Your task to perform on an android device: turn off notifications in google photos Image 0: 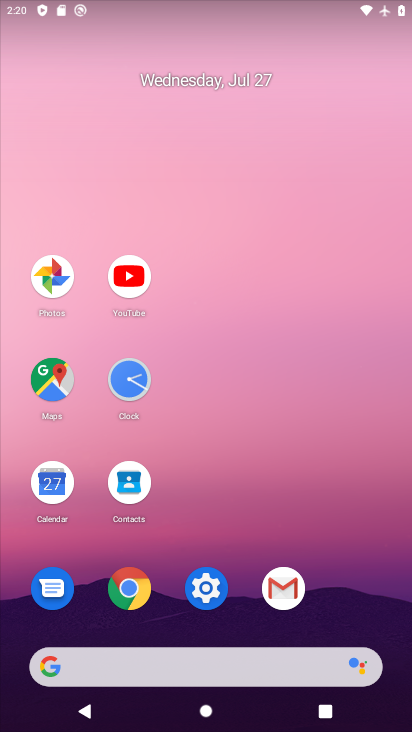
Step 0: click (53, 287)
Your task to perform on an android device: turn off notifications in google photos Image 1: 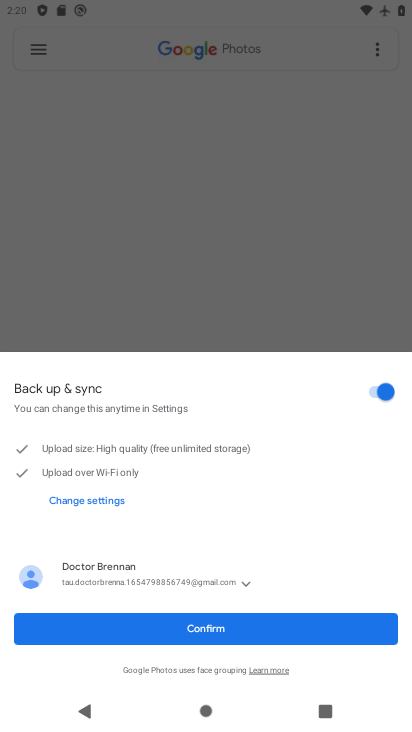
Step 1: click (35, 45)
Your task to perform on an android device: turn off notifications in google photos Image 2: 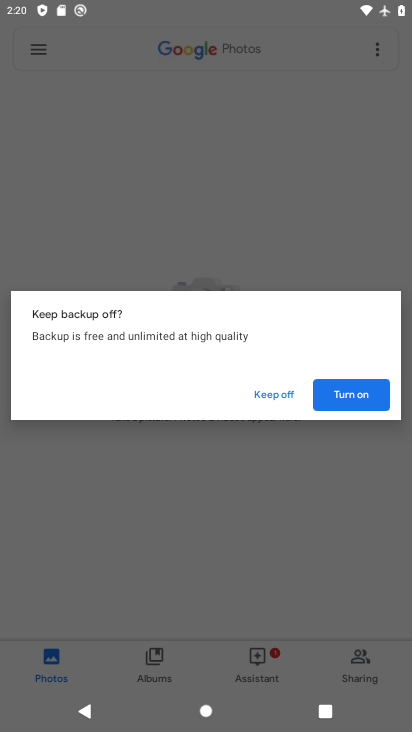
Step 2: click (334, 395)
Your task to perform on an android device: turn off notifications in google photos Image 3: 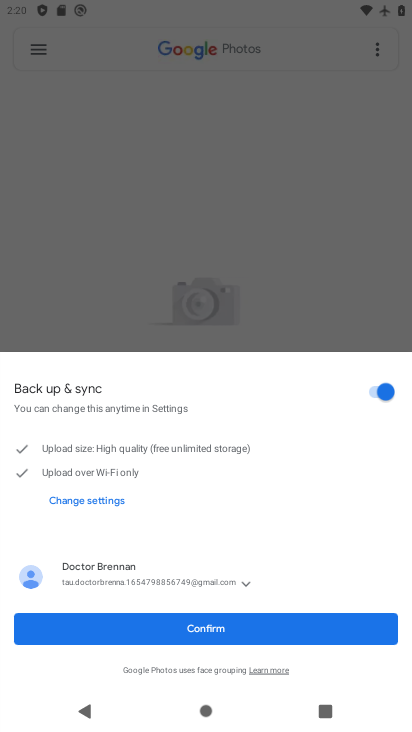
Step 3: click (190, 621)
Your task to perform on an android device: turn off notifications in google photos Image 4: 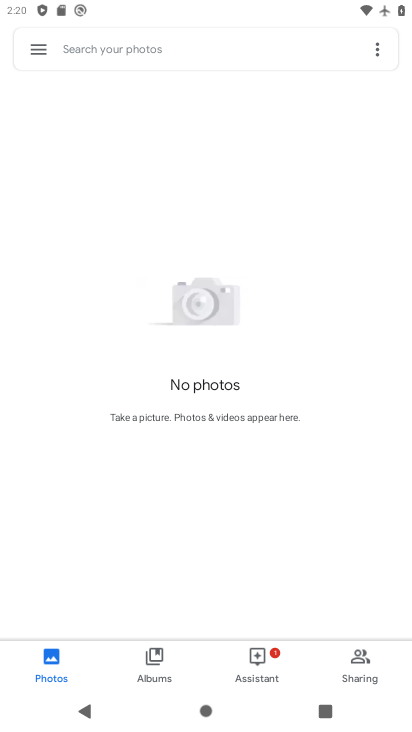
Step 4: click (38, 42)
Your task to perform on an android device: turn off notifications in google photos Image 5: 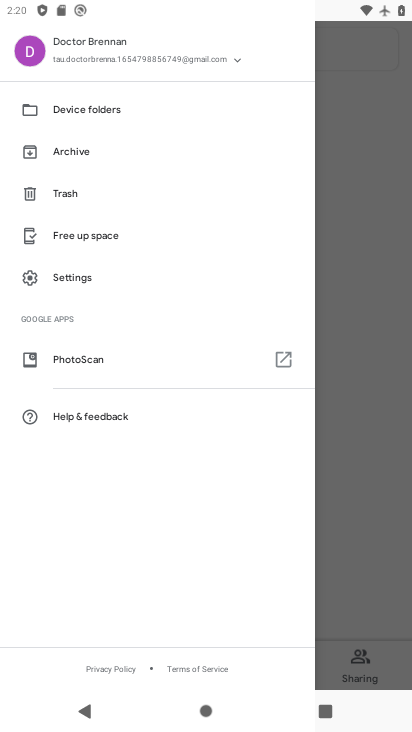
Step 5: click (73, 273)
Your task to perform on an android device: turn off notifications in google photos Image 6: 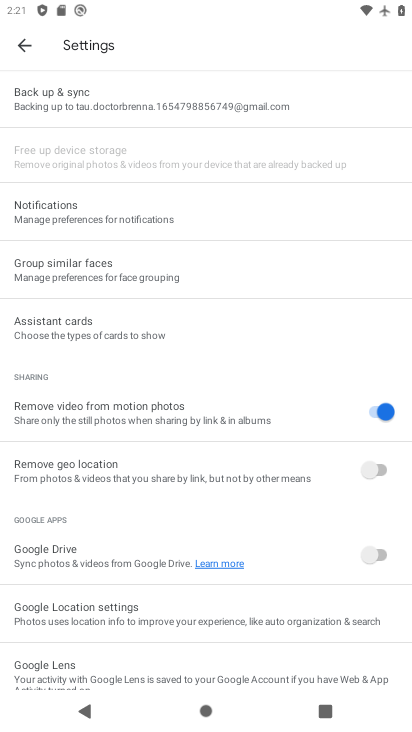
Step 6: click (55, 206)
Your task to perform on an android device: turn off notifications in google photos Image 7: 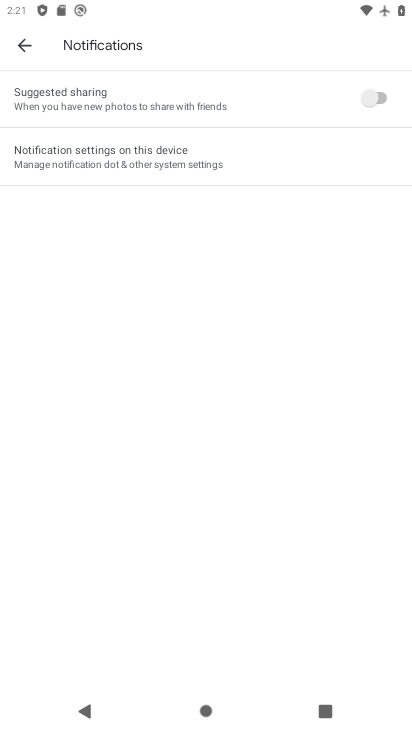
Step 7: click (97, 147)
Your task to perform on an android device: turn off notifications in google photos Image 8: 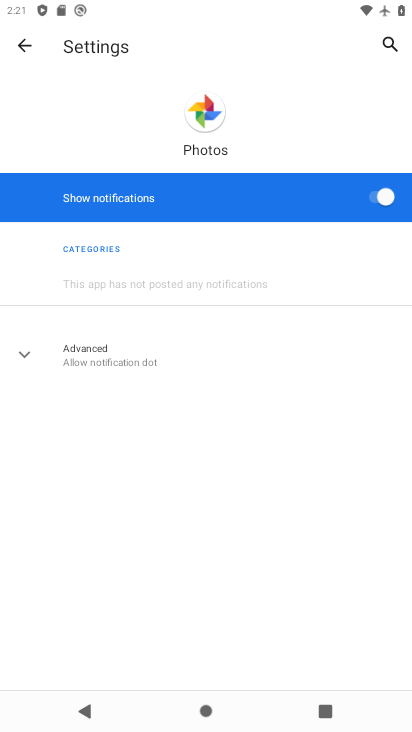
Step 8: click (388, 199)
Your task to perform on an android device: turn off notifications in google photos Image 9: 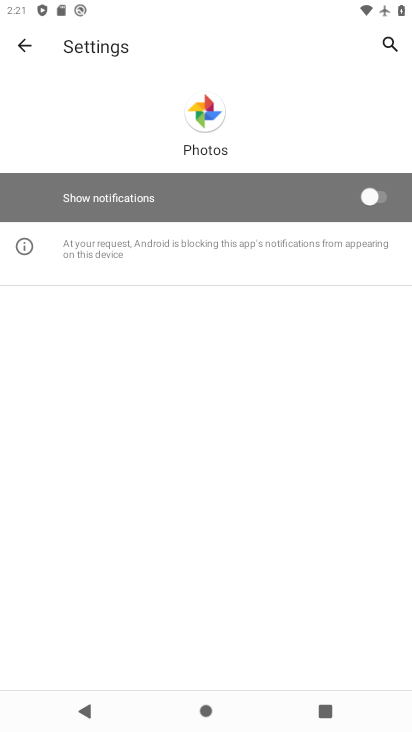
Step 9: task complete